Your task to perform on an android device: turn on airplane mode Image 0: 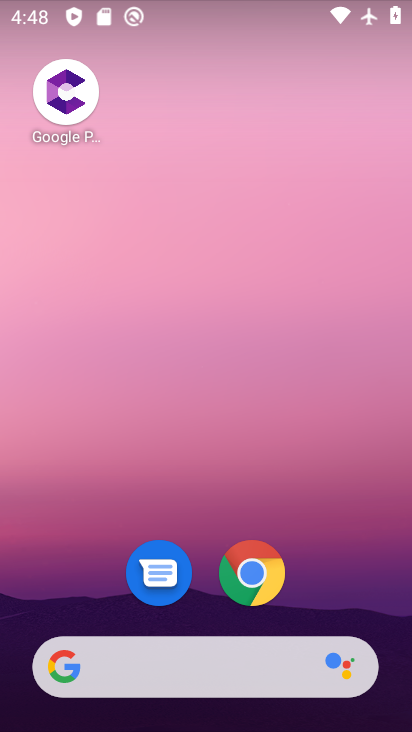
Step 0: drag from (281, 604) to (179, 165)
Your task to perform on an android device: turn on airplane mode Image 1: 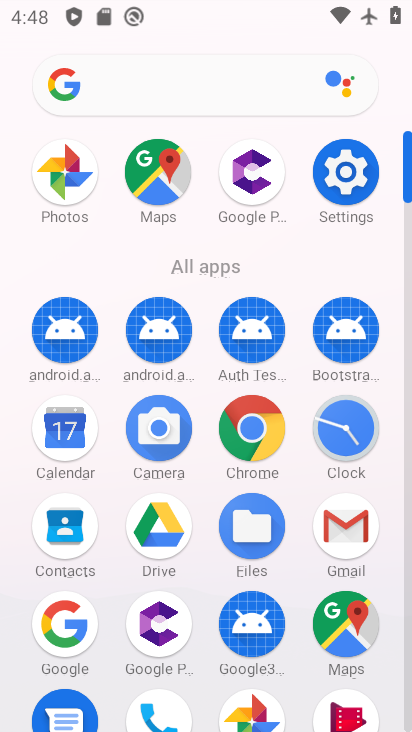
Step 1: drag from (244, 489) to (188, 11)
Your task to perform on an android device: turn on airplane mode Image 2: 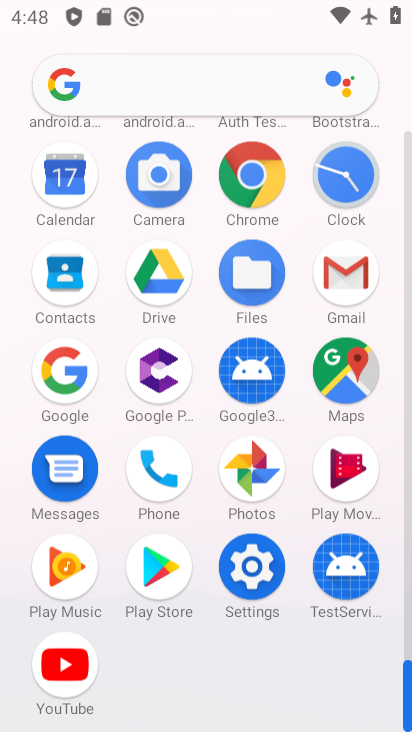
Step 2: drag from (247, 485) to (211, 54)
Your task to perform on an android device: turn on airplane mode Image 3: 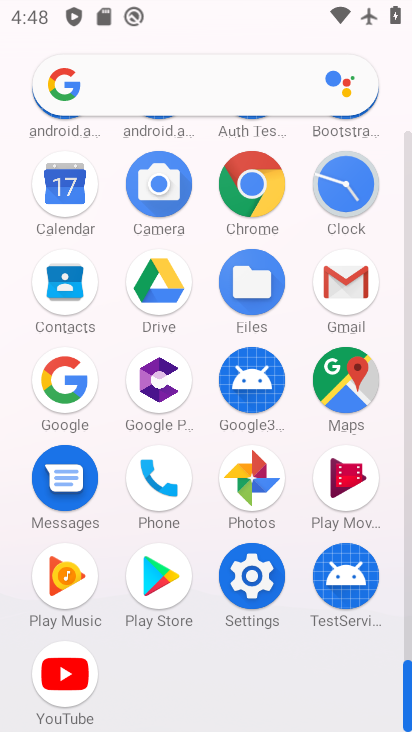
Step 3: click (260, 589)
Your task to perform on an android device: turn on airplane mode Image 4: 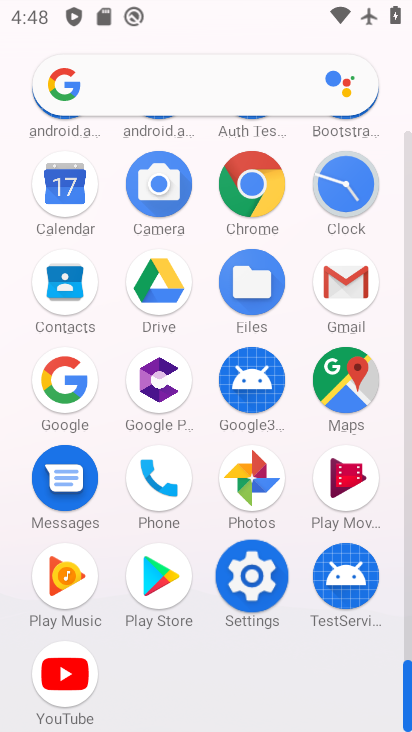
Step 4: click (260, 589)
Your task to perform on an android device: turn on airplane mode Image 5: 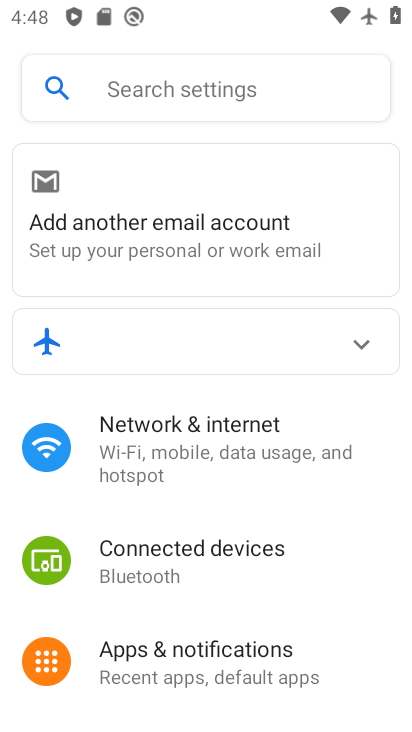
Step 5: drag from (191, 583) to (177, 238)
Your task to perform on an android device: turn on airplane mode Image 6: 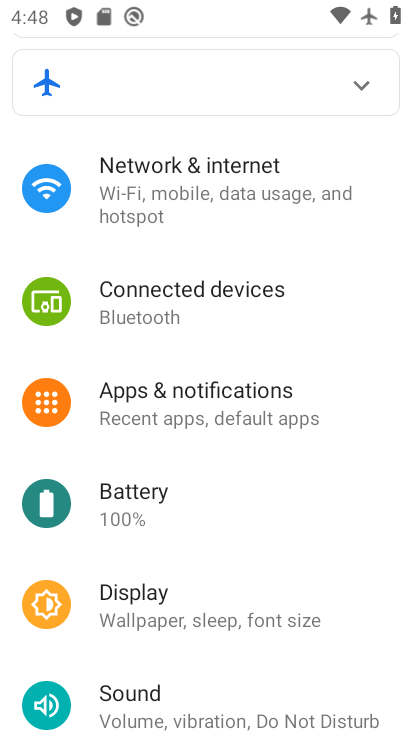
Step 6: drag from (224, 403) to (199, 153)
Your task to perform on an android device: turn on airplane mode Image 7: 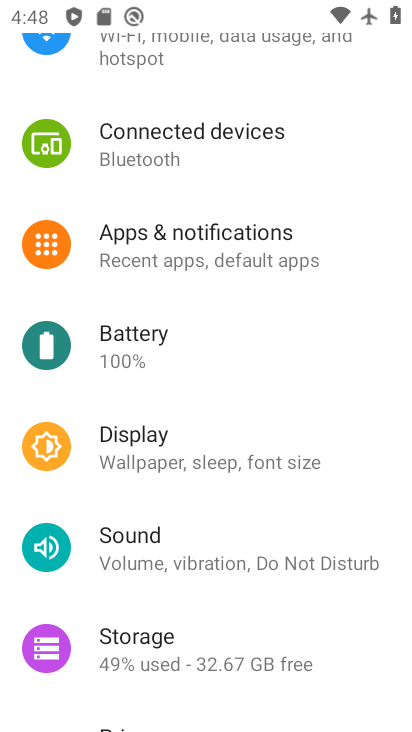
Step 7: drag from (235, 531) to (180, 184)
Your task to perform on an android device: turn on airplane mode Image 8: 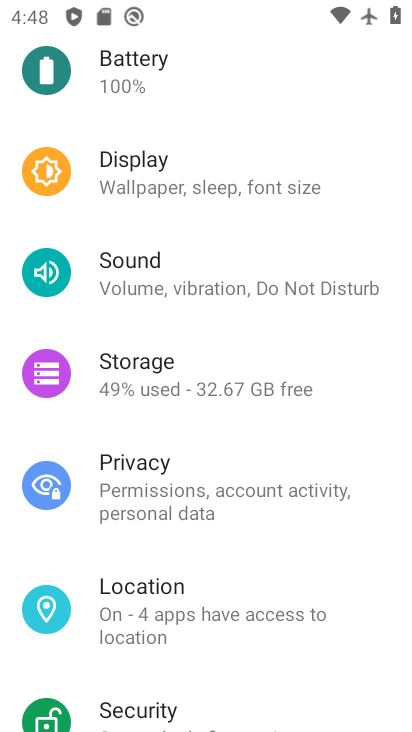
Step 8: drag from (140, 145) to (220, 555)
Your task to perform on an android device: turn on airplane mode Image 9: 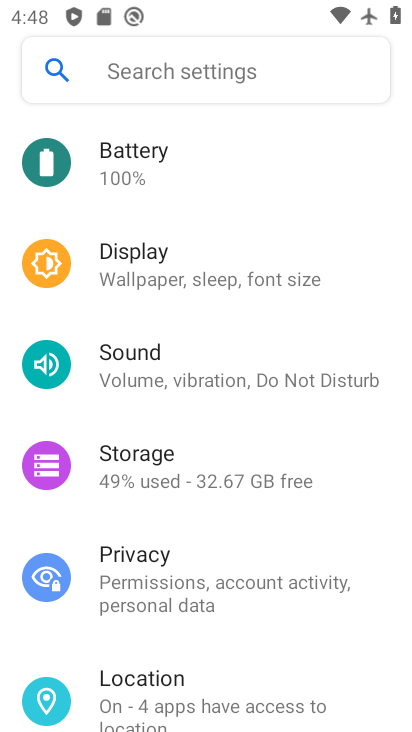
Step 9: drag from (207, 315) to (206, 617)
Your task to perform on an android device: turn on airplane mode Image 10: 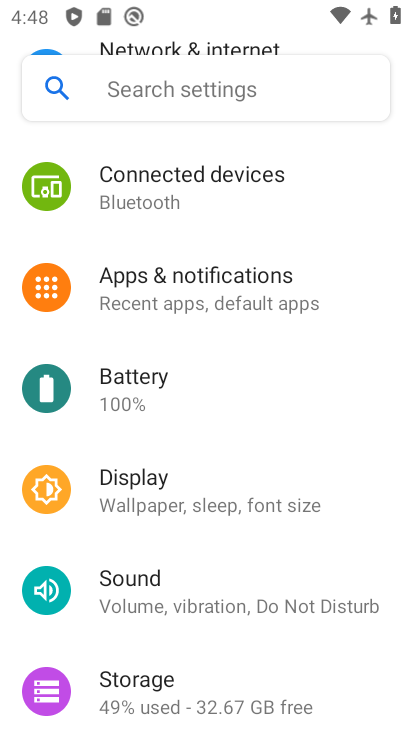
Step 10: drag from (168, 182) to (197, 637)
Your task to perform on an android device: turn on airplane mode Image 11: 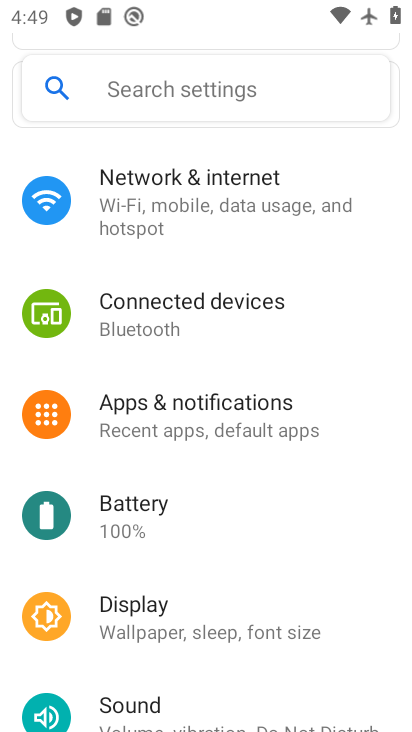
Step 11: click (154, 189)
Your task to perform on an android device: turn on airplane mode Image 12: 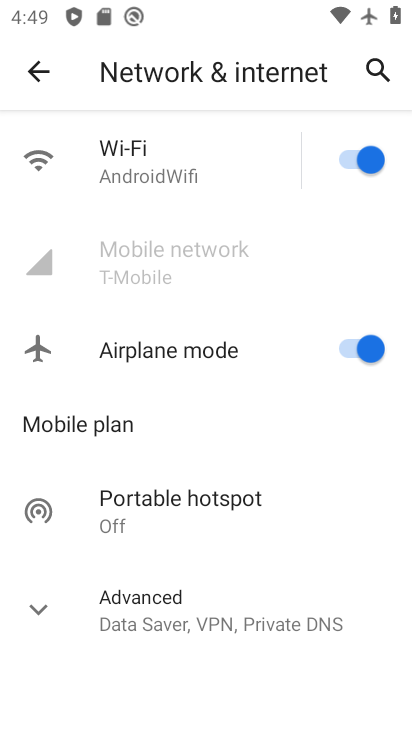
Step 12: task complete